Your task to perform on an android device: open a bookmark in the chrome app Image 0: 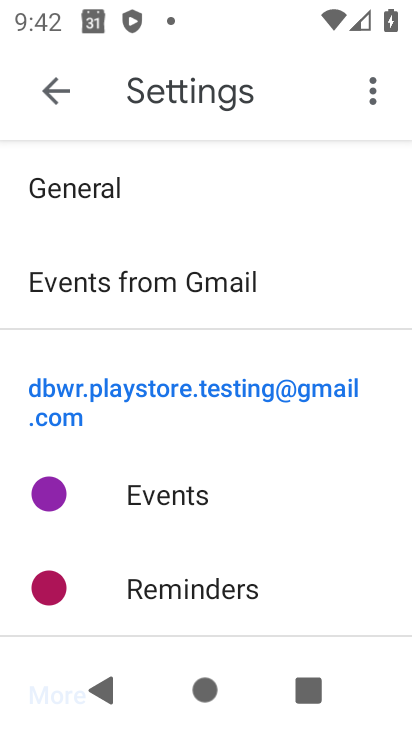
Step 0: press home button
Your task to perform on an android device: open a bookmark in the chrome app Image 1: 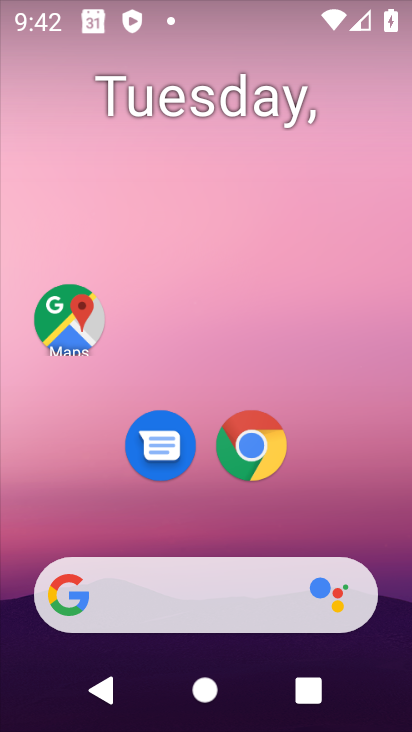
Step 1: click (246, 441)
Your task to perform on an android device: open a bookmark in the chrome app Image 2: 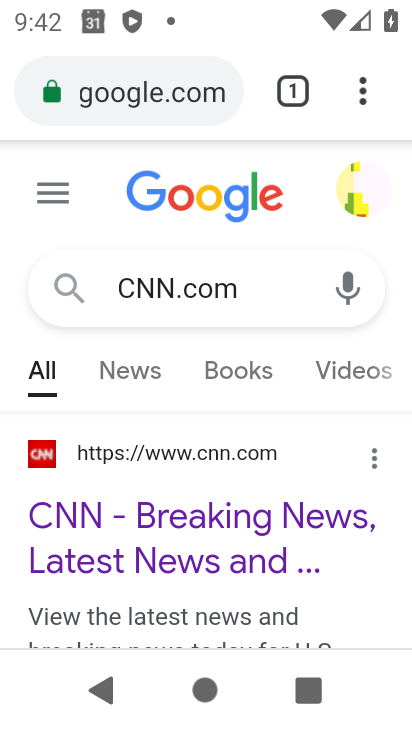
Step 2: click (357, 90)
Your task to perform on an android device: open a bookmark in the chrome app Image 3: 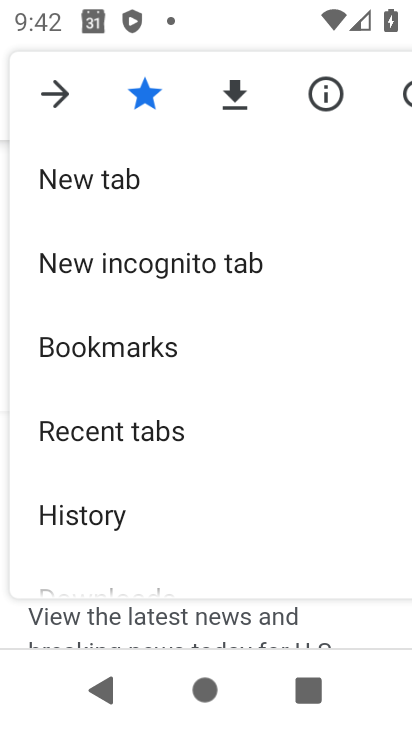
Step 3: click (170, 337)
Your task to perform on an android device: open a bookmark in the chrome app Image 4: 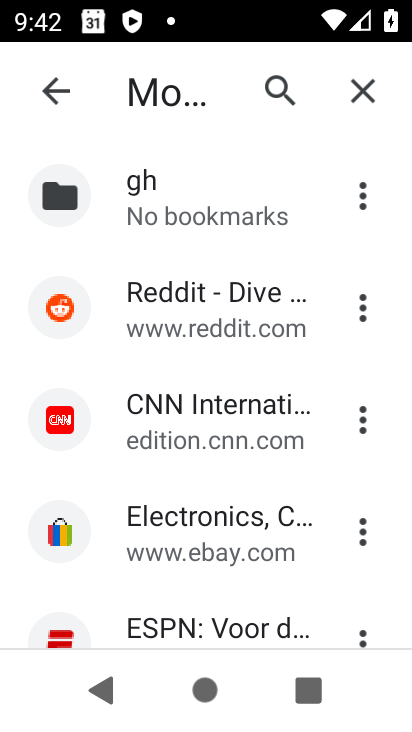
Step 4: task complete